Your task to perform on an android device: What is the recent news? Image 0: 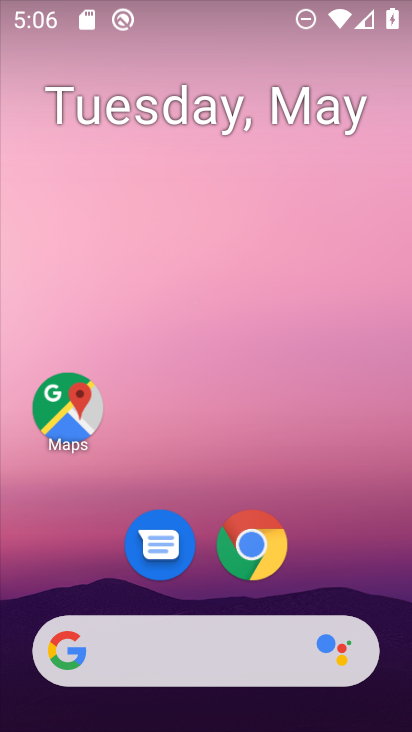
Step 0: drag from (323, 474) to (249, 46)
Your task to perform on an android device: What is the recent news? Image 1: 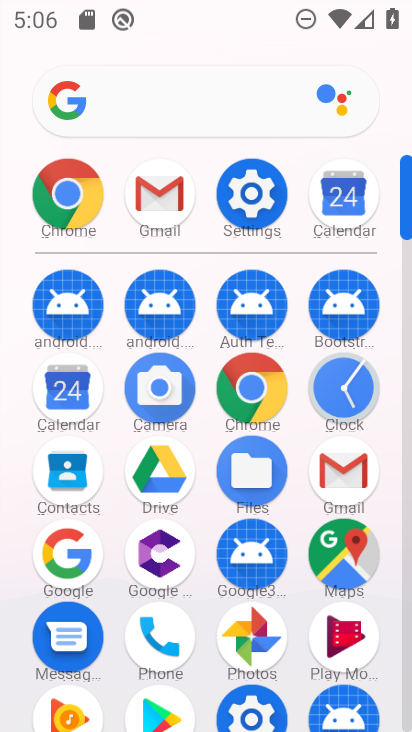
Step 1: drag from (15, 589) to (0, 257)
Your task to perform on an android device: What is the recent news? Image 2: 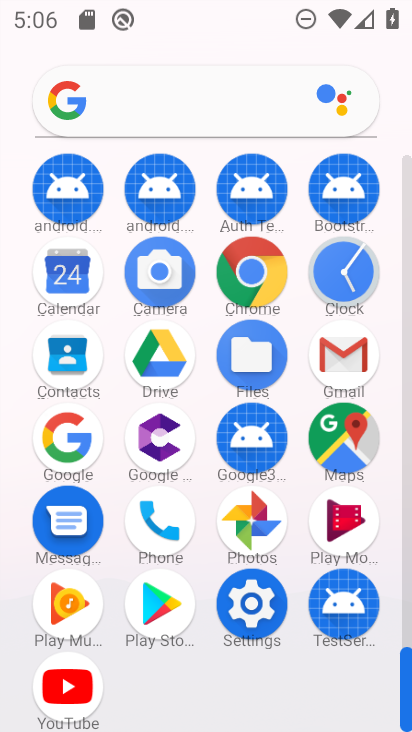
Step 2: click (253, 276)
Your task to perform on an android device: What is the recent news? Image 3: 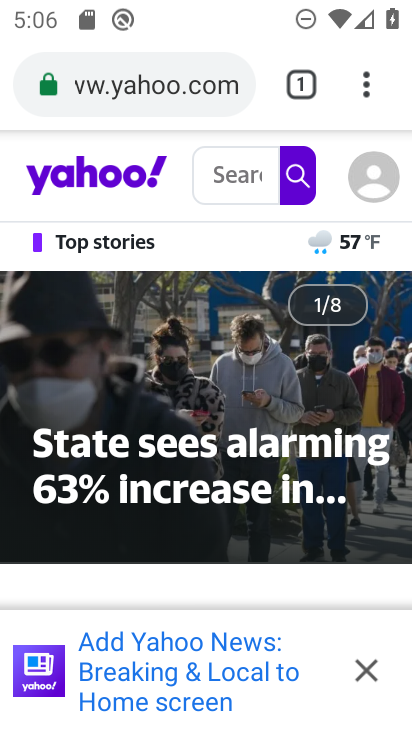
Step 3: click (198, 81)
Your task to perform on an android device: What is the recent news? Image 4: 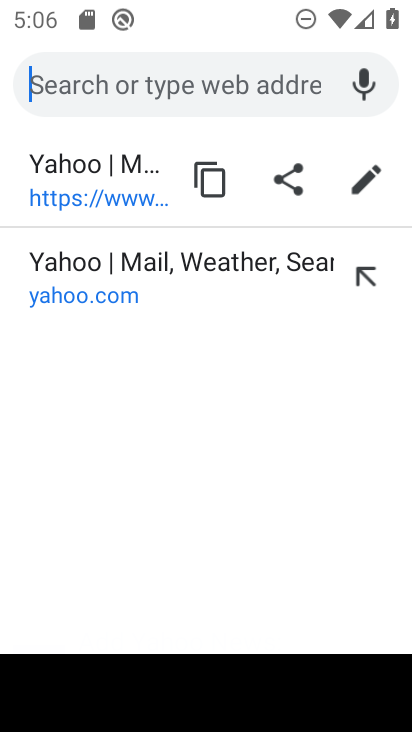
Step 4: type "What is the recent news?"
Your task to perform on an android device: What is the recent news? Image 5: 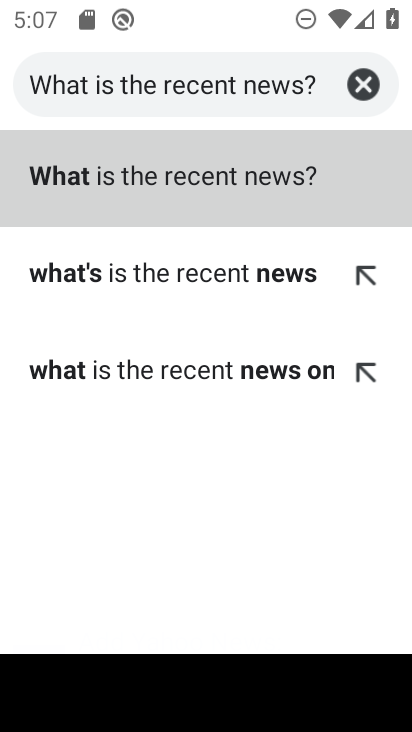
Step 5: click (287, 180)
Your task to perform on an android device: What is the recent news? Image 6: 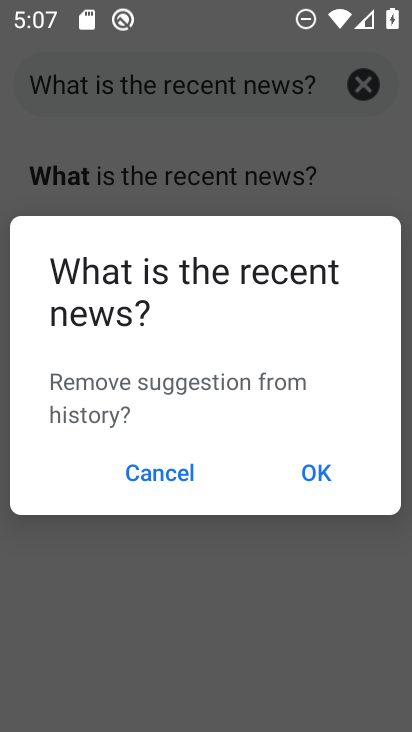
Step 6: click (317, 471)
Your task to perform on an android device: What is the recent news? Image 7: 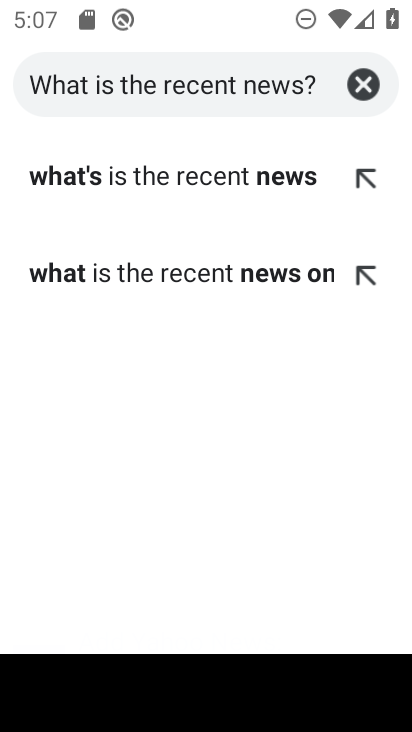
Step 7: click (234, 175)
Your task to perform on an android device: What is the recent news? Image 8: 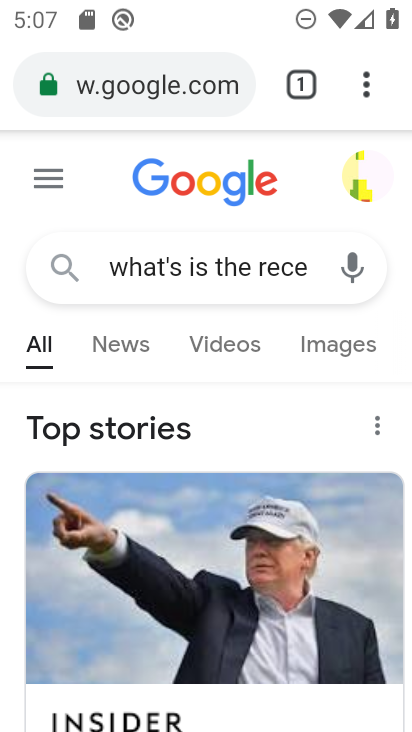
Step 8: task complete